Your task to perform on an android device: Go to internet settings Image 0: 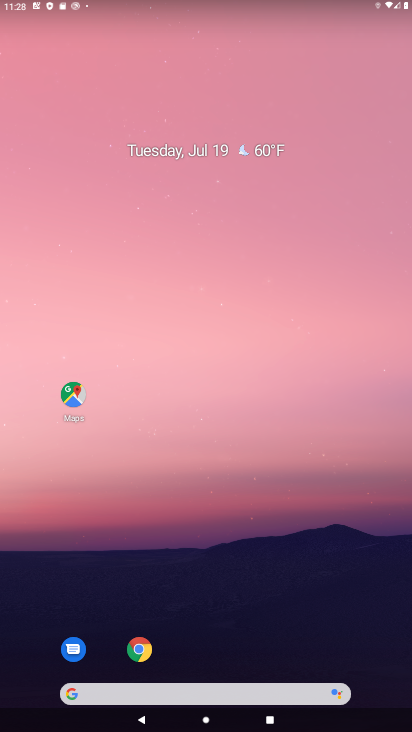
Step 0: drag from (182, 688) to (196, 203)
Your task to perform on an android device: Go to internet settings Image 1: 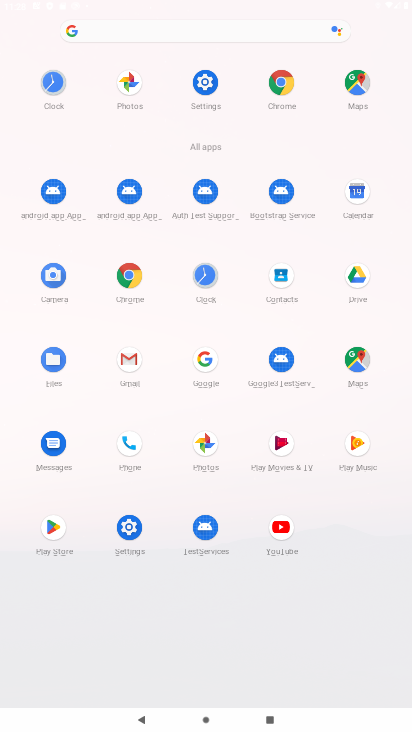
Step 1: click (198, 87)
Your task to perform on an android device: Go to internet settings Image 2: 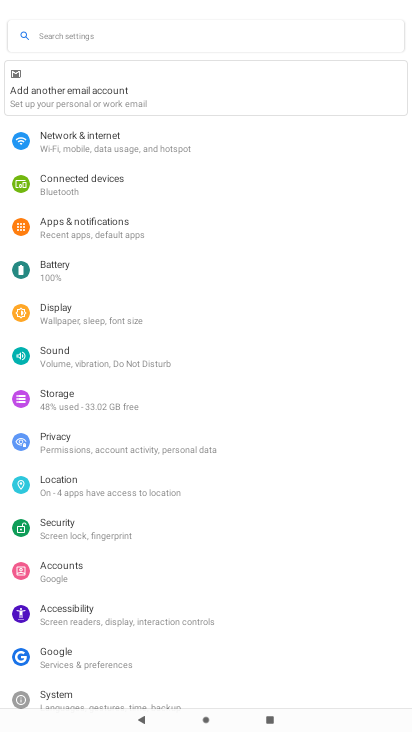
Step 2: click (109, 144)
Your task to perform on an android device: Go to internet settings Image 3: 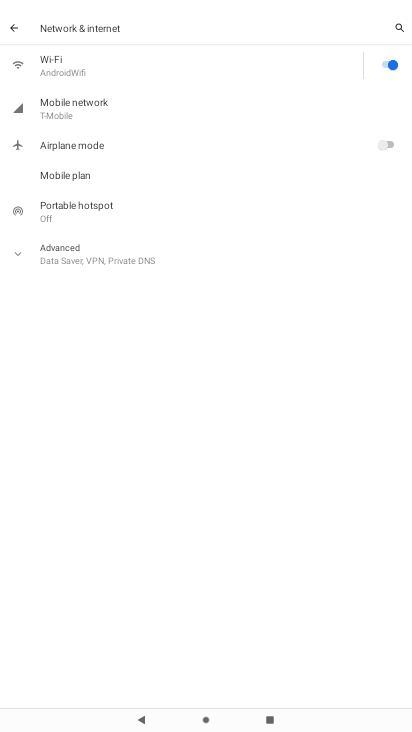
Step 3: task complete